Your task to perform on an android device: search for starred emails in the gmail app Image 0: 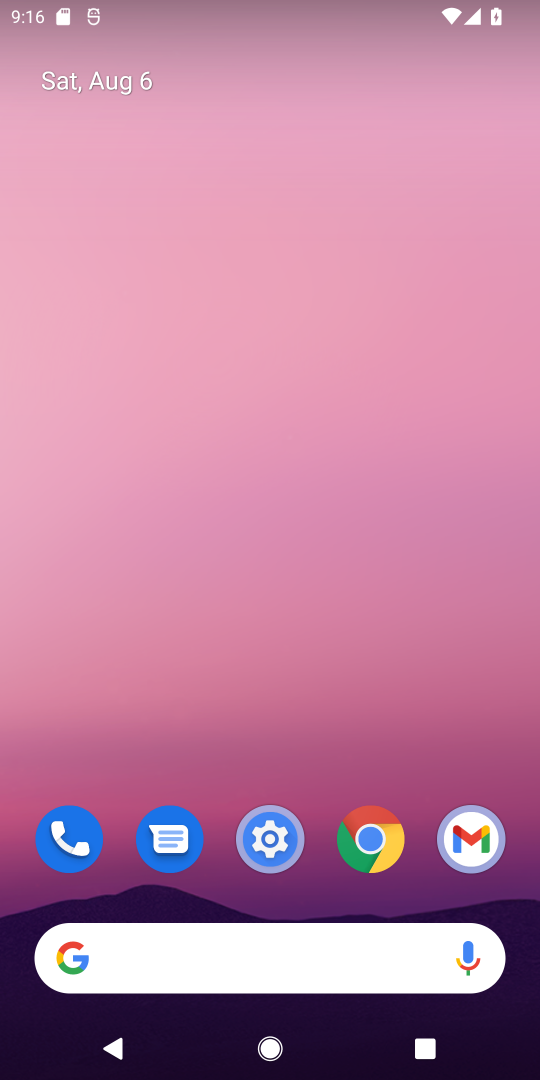
Step 0: press home button
Your task to perform on an android device: search for starred emails in the gmail app Image 1: 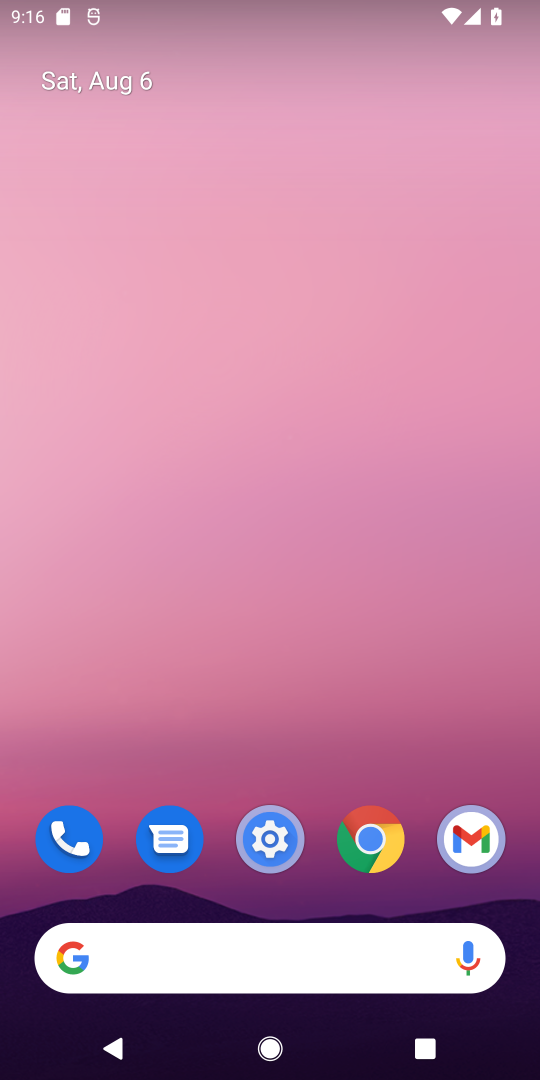
Step 1: click (464, 828)
Your task to perform on an android device: search for starred emails in the gmail app Image 2: 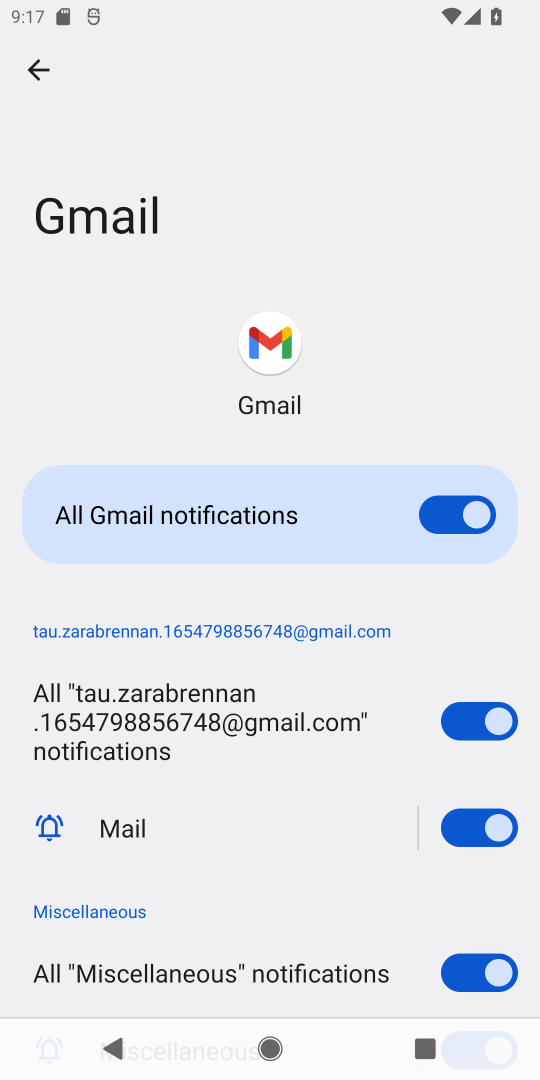
Step 2: press back button
Your task to perform on an android device: search for starred emails in the gmail app Image 3: 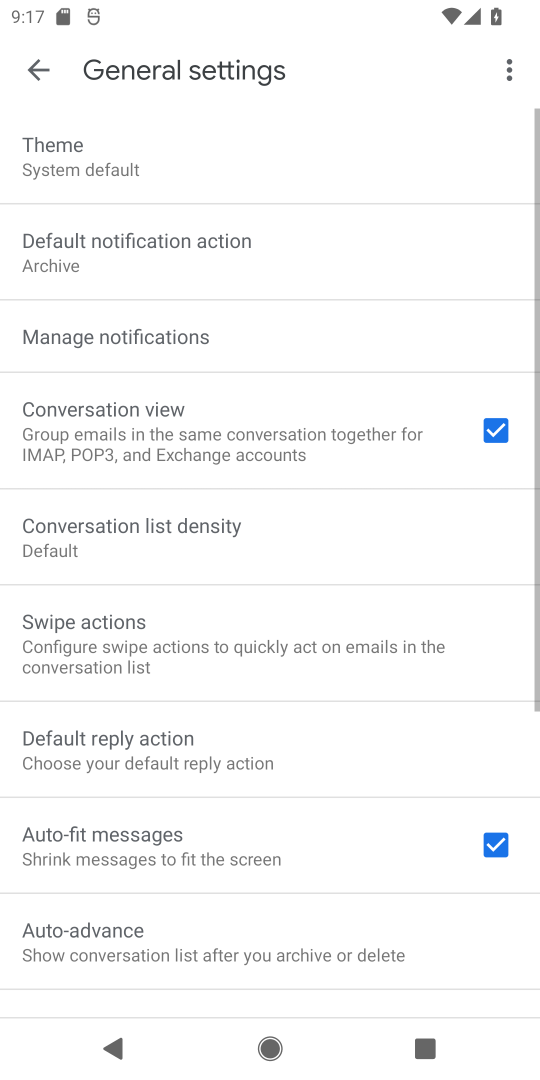
Step 3: click (42, 74)
Your task to perform on an android device: search for starred emails in the gmail app Image 4: 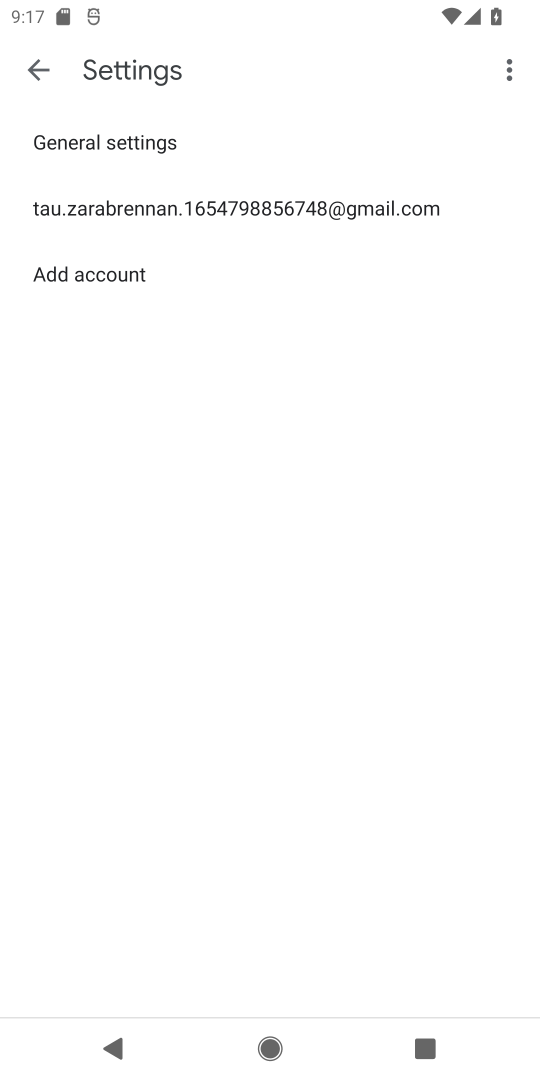
Step 4: click (36, 66)
Your task to perform on an android device: search for starred emails in the gmail app Image 5: 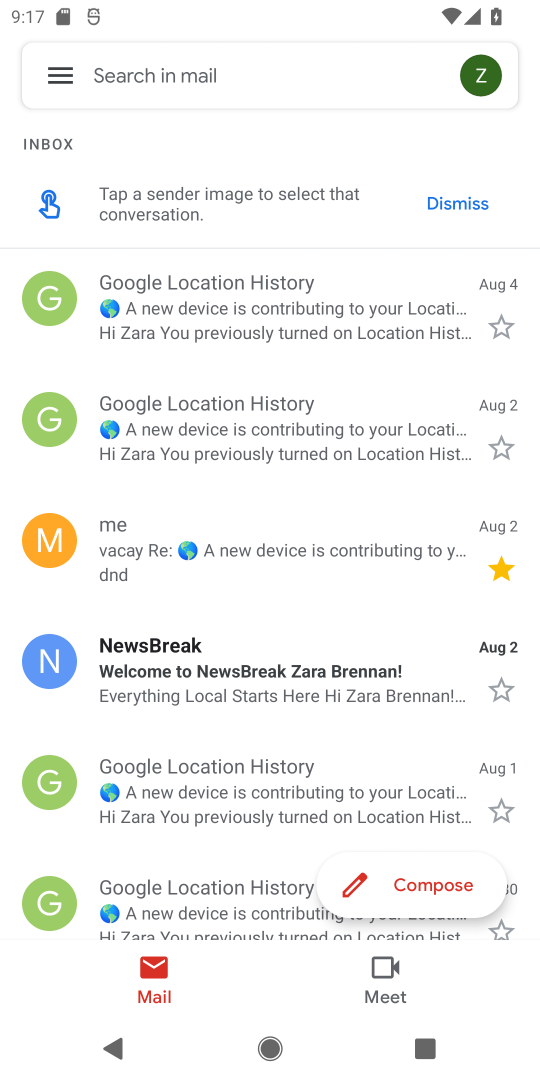
Step 5: click (66, 53)
Your task to perform on an android device: search for starred emails in the gmail app Image 6: 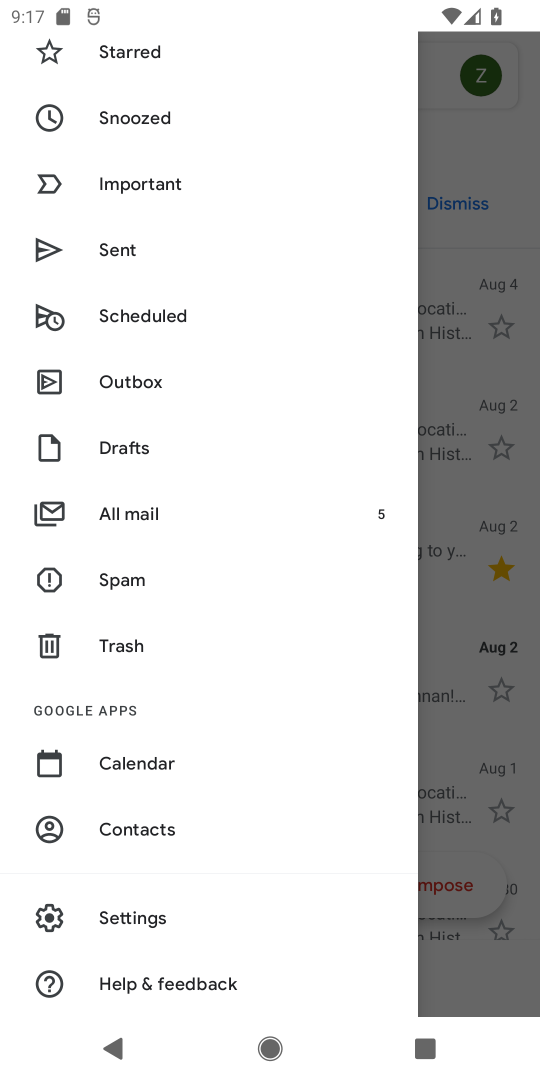
Step 6: click (118, 47)
Your task to perform on an android device: search for starred emails in the gmail app Image 7: 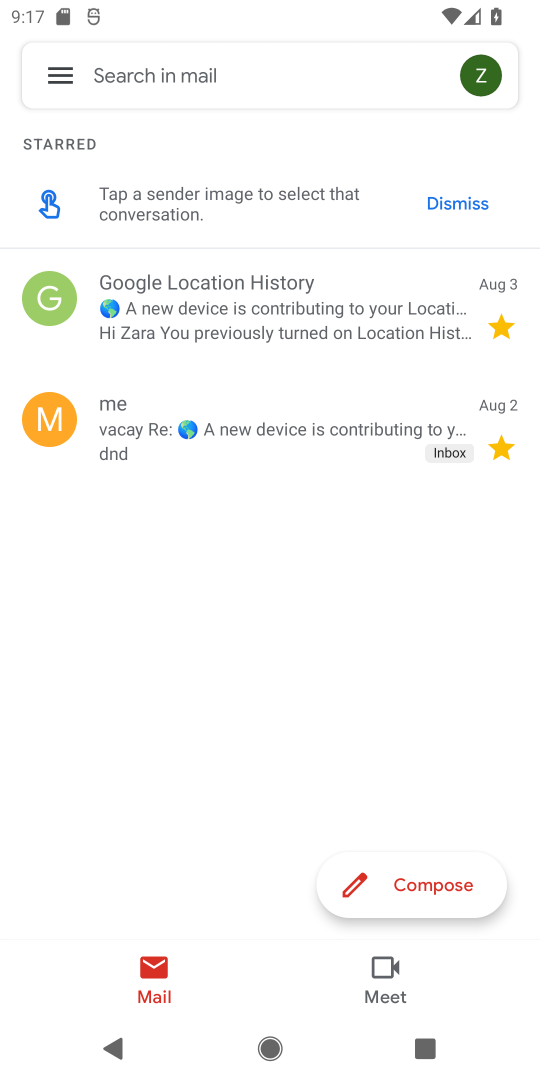
Step 7: task complete